Your task to perform on an android device: manage bookmarks in the chrome app Image 0: 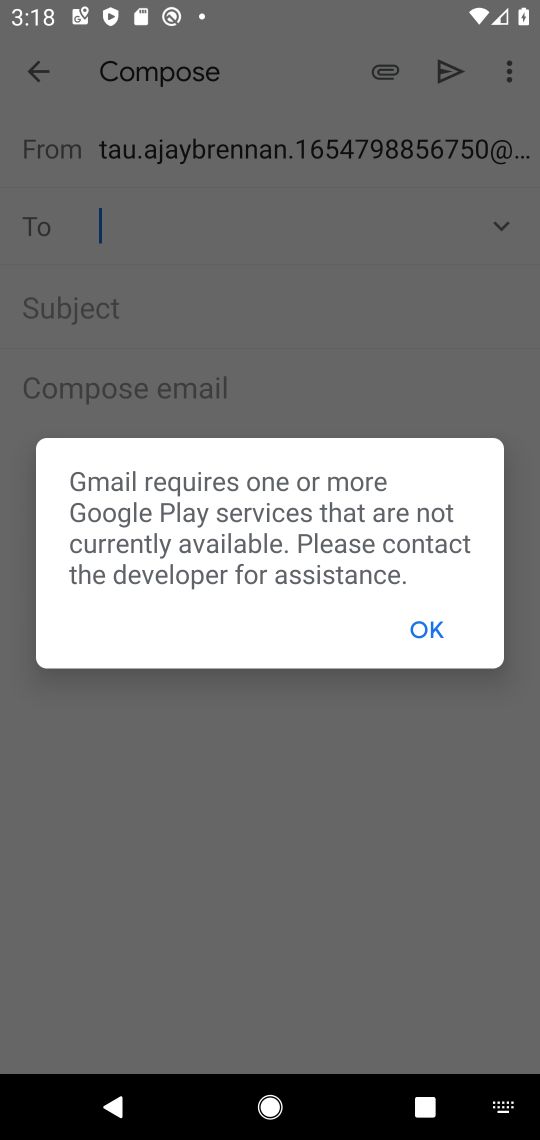
Step 0: click (428, 634)
Your task to perform on an android device: manage bookmarks in the chrome app Image 1: 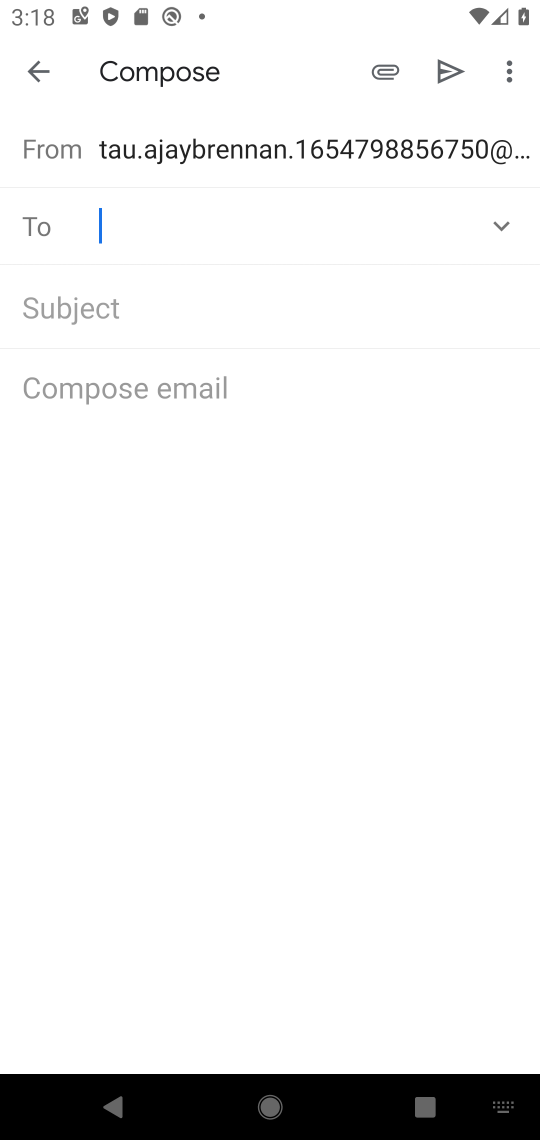
Step 1: press back button
Your task to perform on an android device: manage bookmarks in the chrome app Image 2: 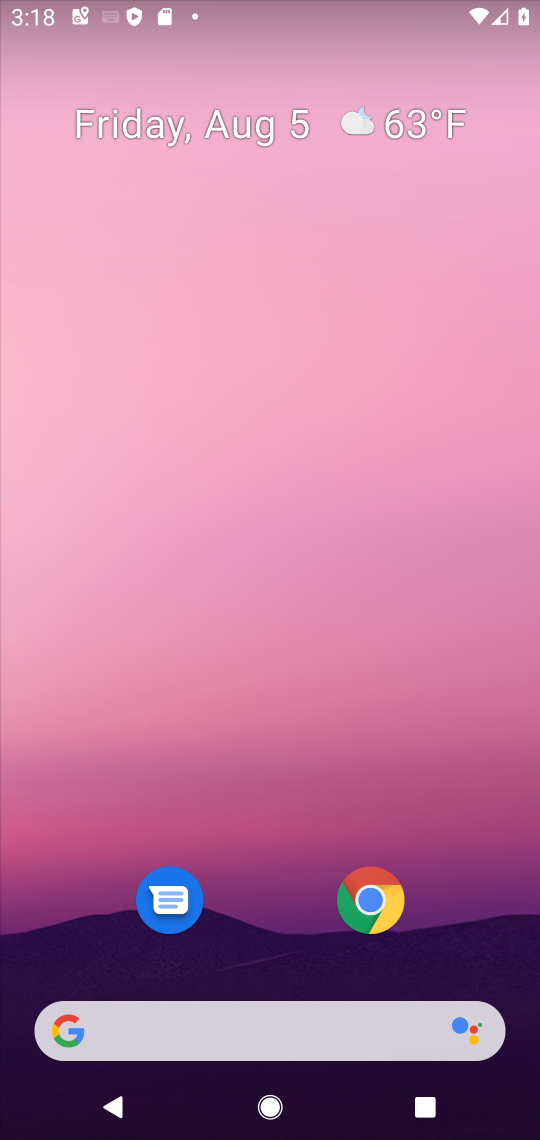
Step 2: click (382, 896)
Your task to perform on an android device: manage bookmarks in the chrome app Image 3: 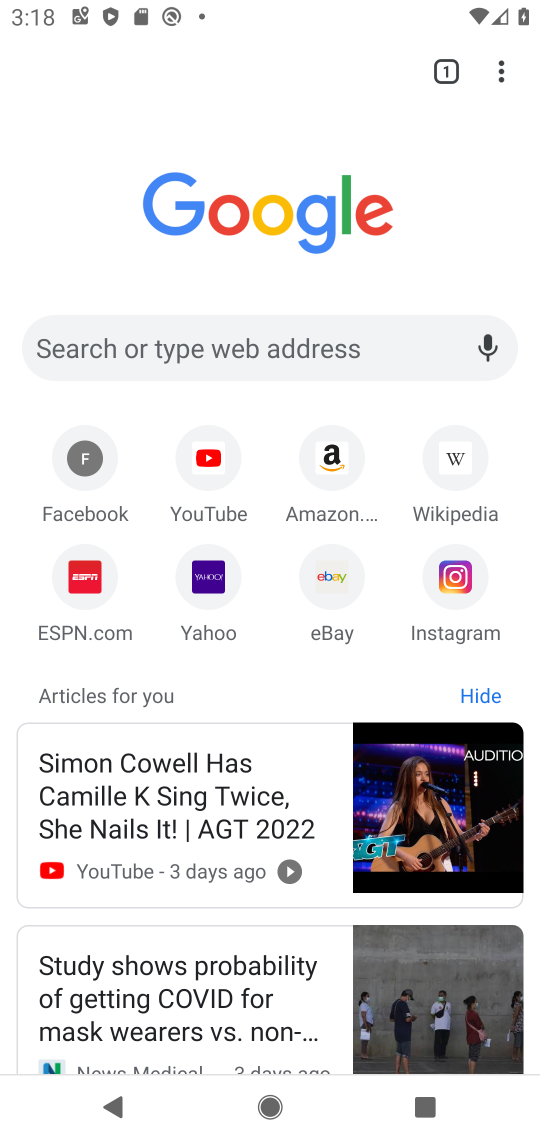
Step 3: drag from (495, 62) to (287, 282)
Your task to perform on an android device: manage bookmarks in the chrome app Image 4: 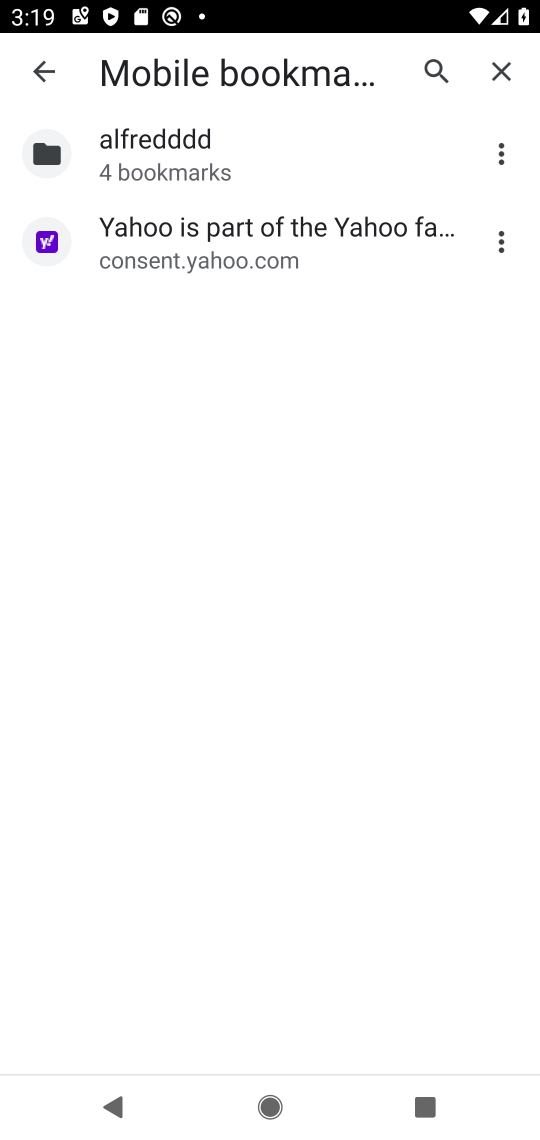
Step 4: click (499, 239)
Your task to perform on an android device: manage bookmarks in the chrome app Image 5: 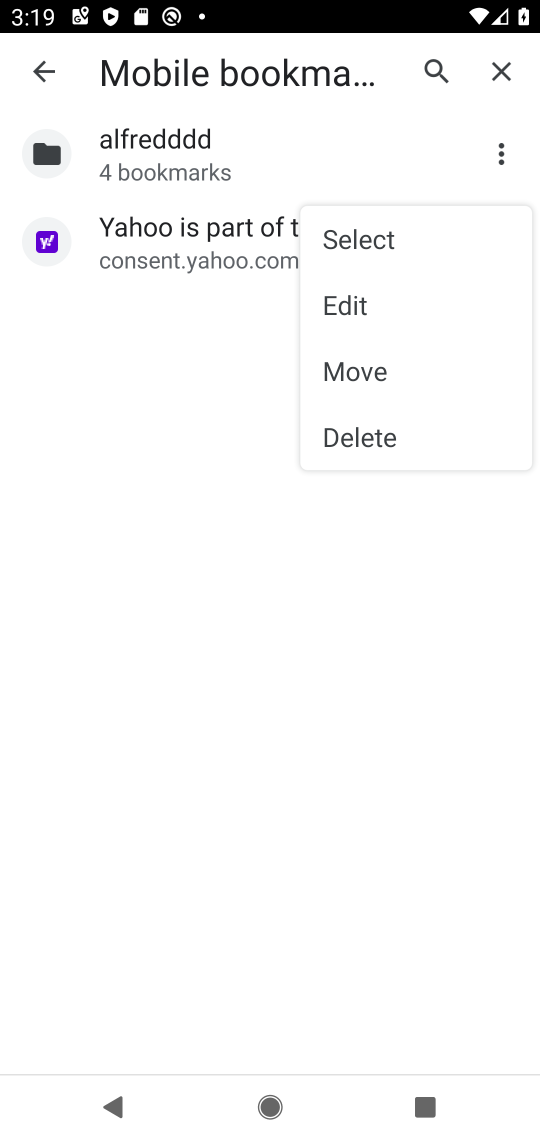
Step 5: click (394, 426)
Your task to perform on an android device: manage bookmarks in the chrome app Image 6: 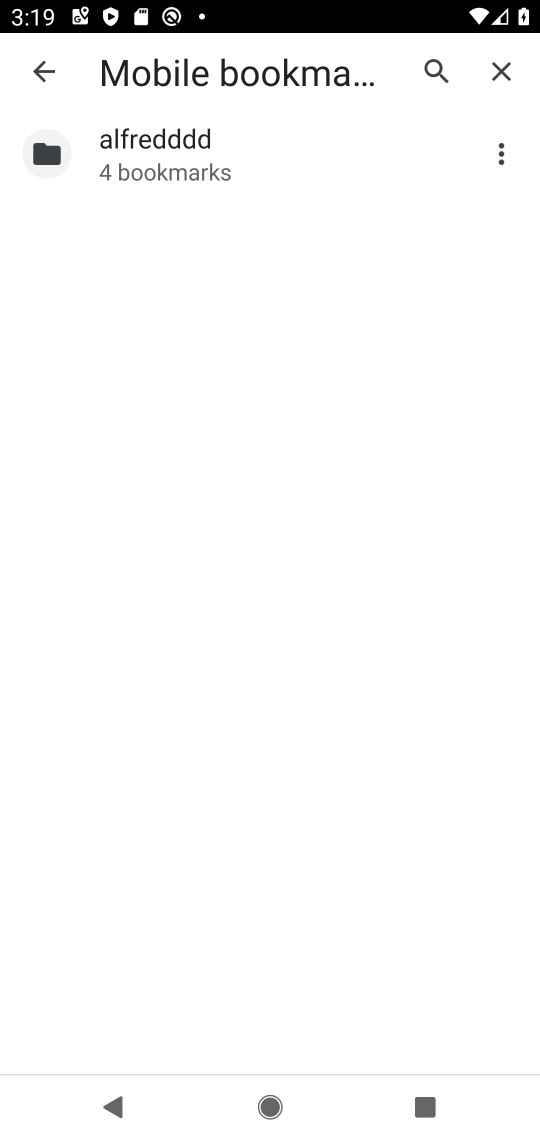
Step 6: task complete